Your task to perform on an android device: Open the calendar app, open the side menu, and click the "Day" option Image 0: 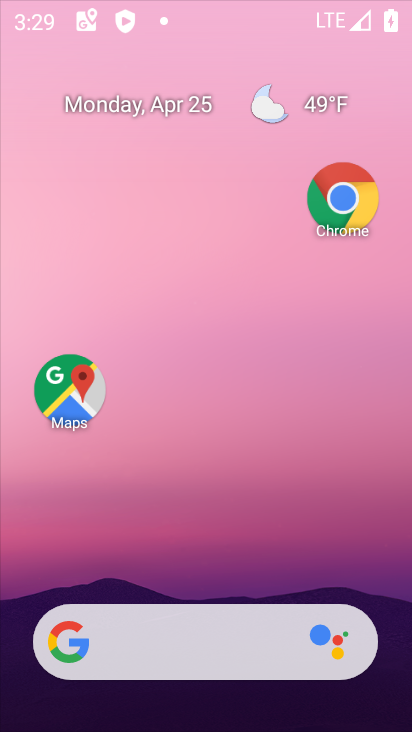
Step 0: press home button
Your task to perform on an android device: Open the calendar app, open the side menu, and click the "Day" option Image 1: 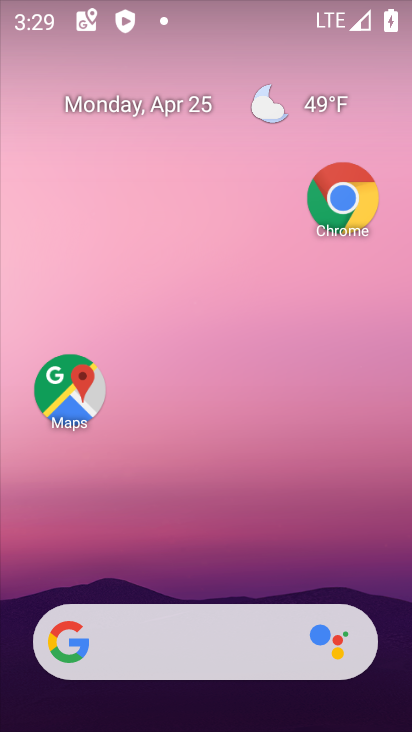
Step 1: drag from (178, 631) to (304, 35)
Your task to perform on an android device: Open the calendar app, open the side menu, and click the "Day" option Image 2: 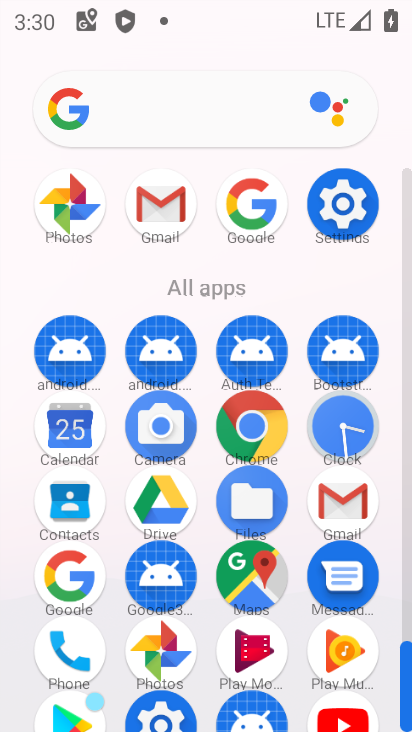
Step 2: click (66, 428)
Your task to perform on an android device: Open the calendar app, open the side menu, and click the "Day" option Image 3: 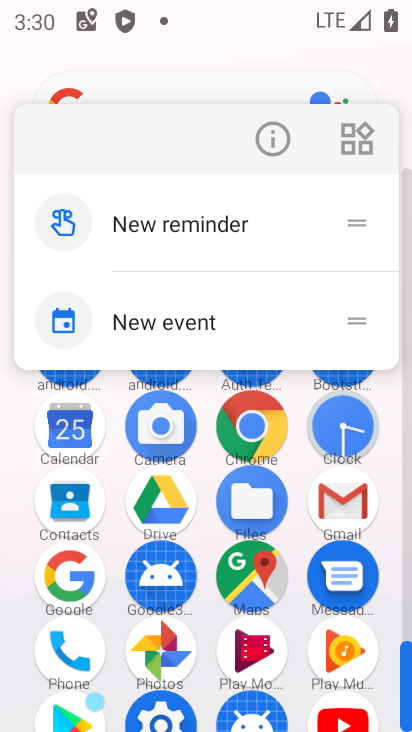
Step 3: click (76, 435)
Your task to perform on an android device: Open the calendar app, open the side menu, and click the "Day" option Image 4: 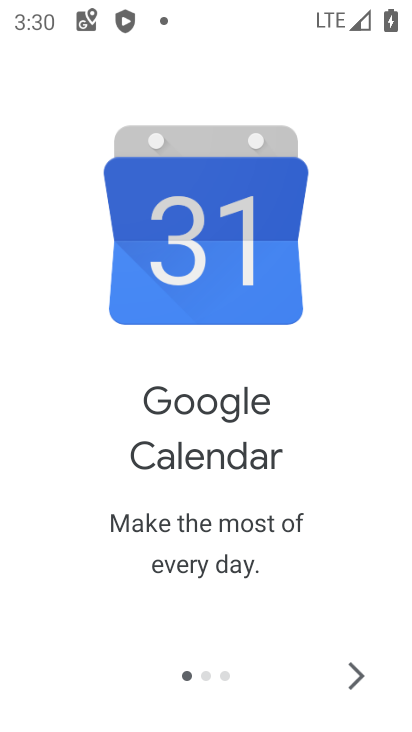
Step 4: click (356, 671)
Your task to perform on an android device: Open the calendar app, open the side menu, and click the "Day" option Image 5: 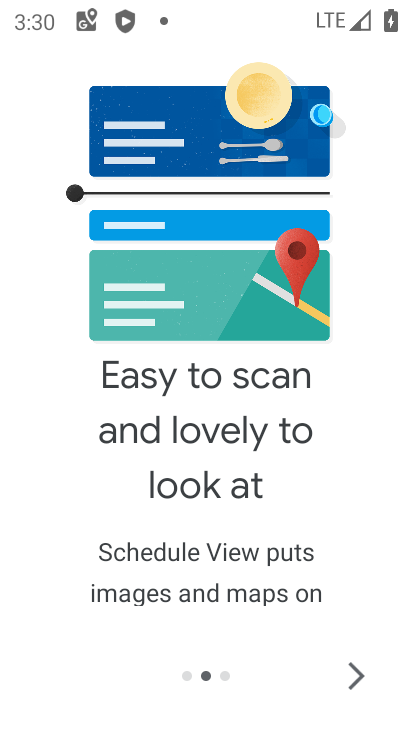
Step 5: click (356, 671)
Your task to perform on an android device: Open the calendar app, open the side menu, and click the "Day" option Image 6: 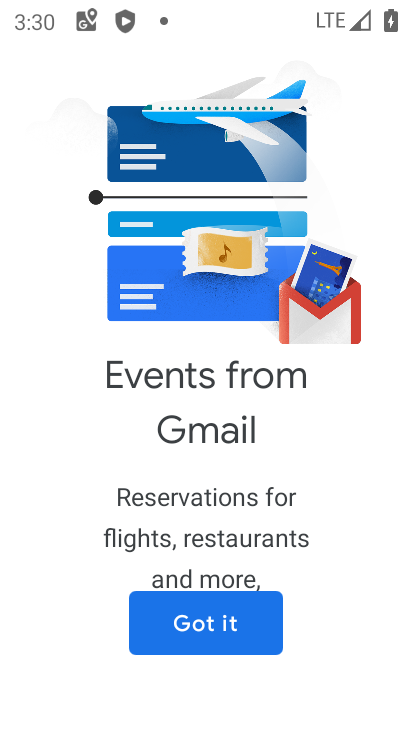
Step 6: click (212, 629)
Your task to perform on an android device: Open the calendar app, open the side menu, and click the "Day" option Image 7: 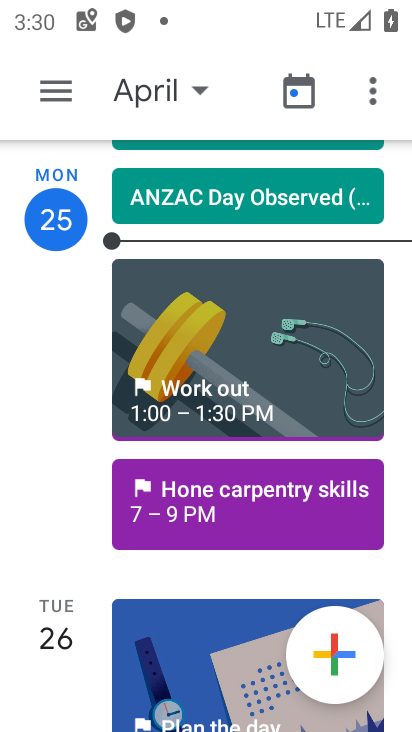
Step 7: click (59, 85)
Your task to perform on an android device: Open the calendar app, open the side menu, and click the "Day" option Image 8: 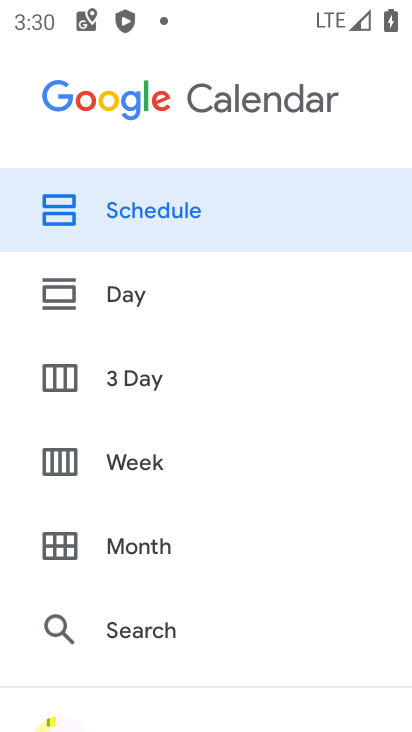
Step 8: click (129, 291)
Your task to perform on an android device: Open the calendar app, open the side menu, and click the "Day" option Image 9: 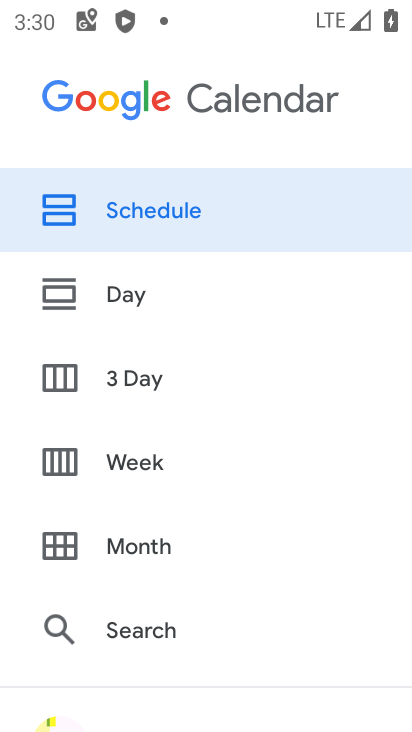
Step 9: click (127, 290)
Your task to perform on an android device: Open the calendar app, open the side menu, and click the "Day" option Image 10: 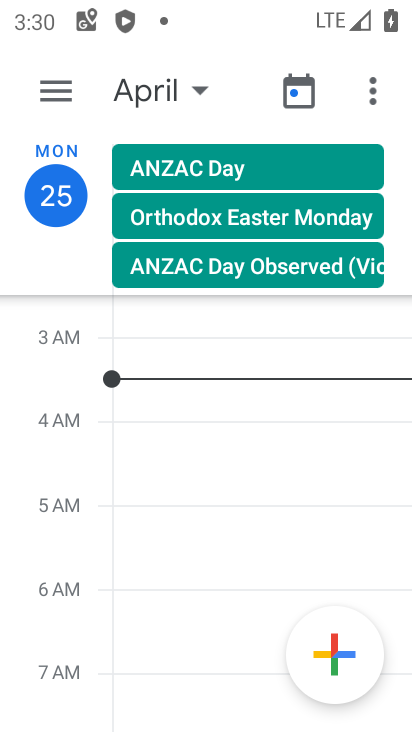
Step 10: task complete